Your task to perform on an android device: delete location history Image 0: 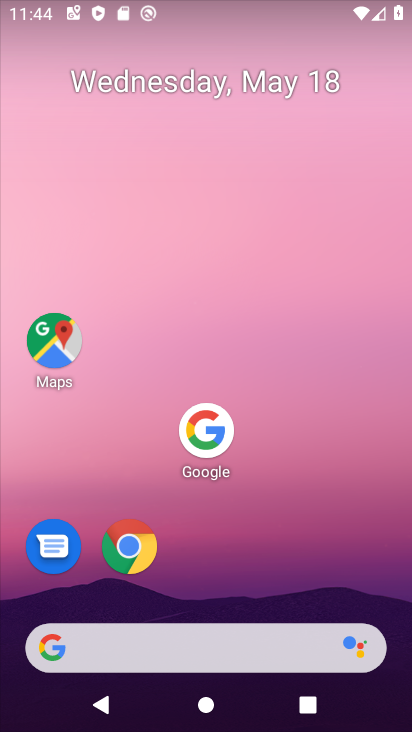
Step 0: drag from (265, 528) to (243, 72)
Your task to perform on an android device: delete location history Image 1: 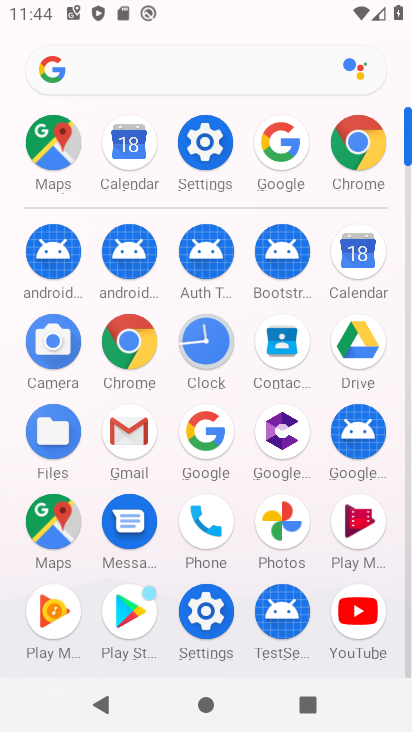
Step 1: click (210, 149)
Your task to perform on an android device: delete location history Image 2: 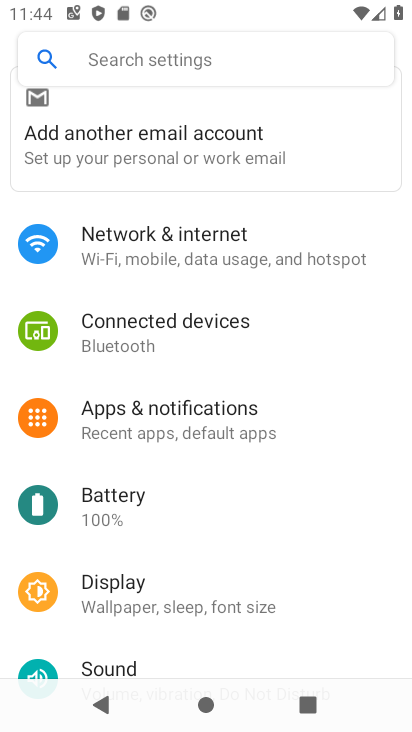
Step 2: drag from (224, 552) to (205, 129)
Your task to perform on an android device: delete location history Image 3: 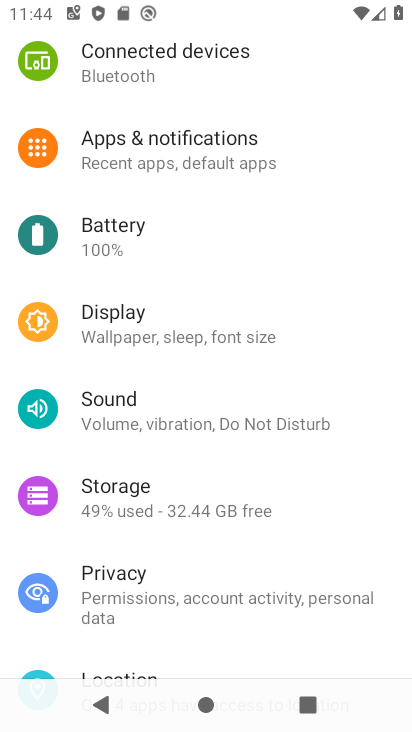
Step 3: drag from (142, 636) to (139, 265)
Your task to perform on an android device: delete location history Image 4: 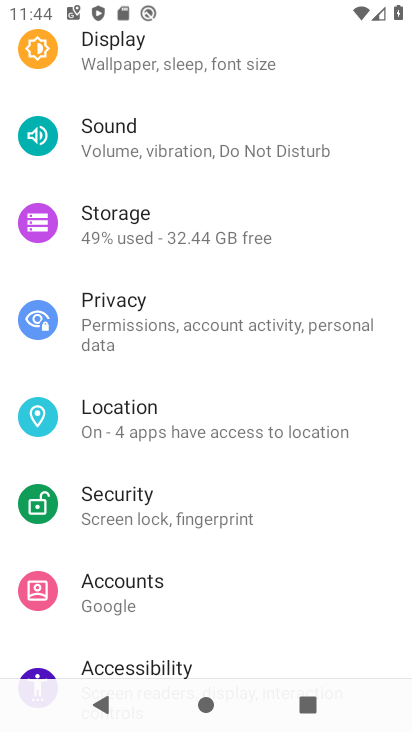
Step 4: click (168, 420)
Your task to perform on an android device: delete location history Image 5: 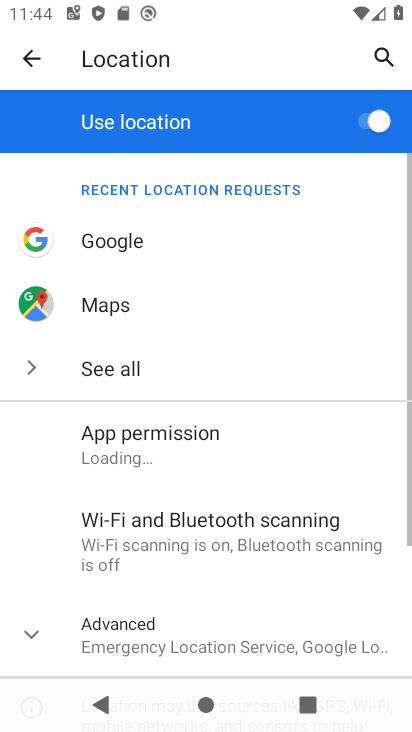
Step 5: drag from (229, 590) to (216, 195)
Your task to perform on an android device: delete location history Image 6: 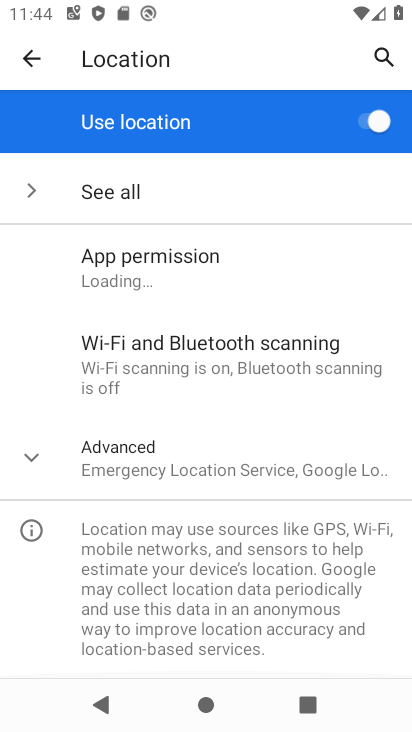
Step 6: click (187, 472)
Your task to perform on an android device: delete location history Image 7: 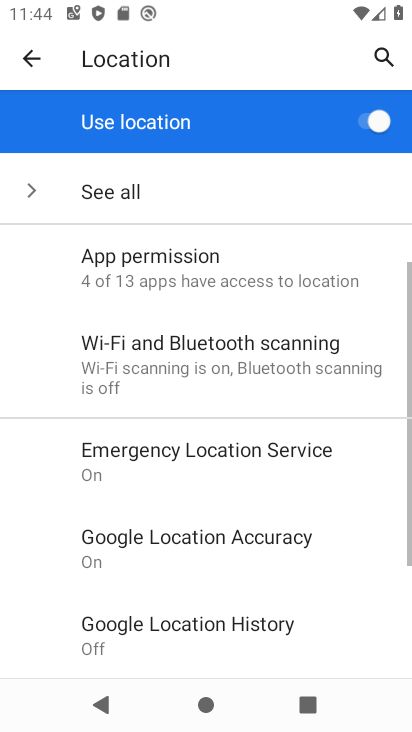
Step 7: drag from (246, 548) to (228, 377)
Your task to perform on an android device: delete location history Image 8: 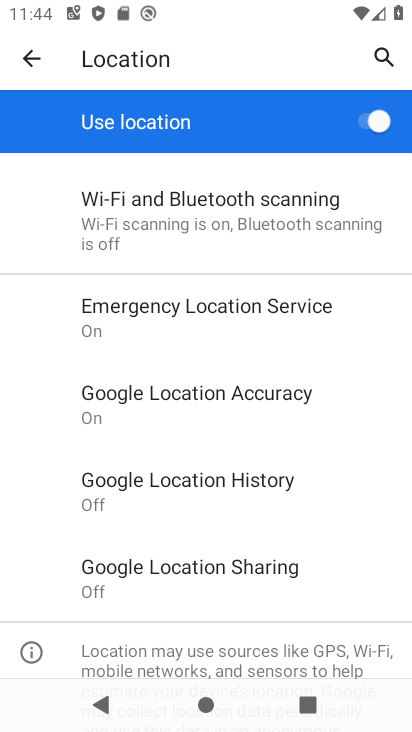
Step 8: click (148, 471)
Your task to perform on an android device: delete location history Image 9: 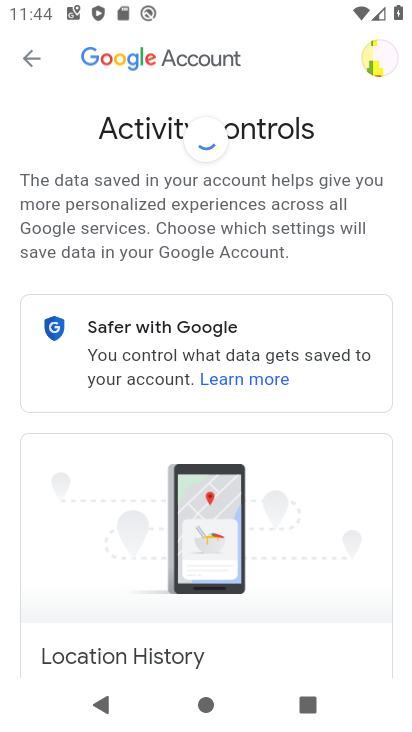
Step 9: drag from (319, 573) to (310, 71)
Your task to perform on an android device: delete location history Image 10: 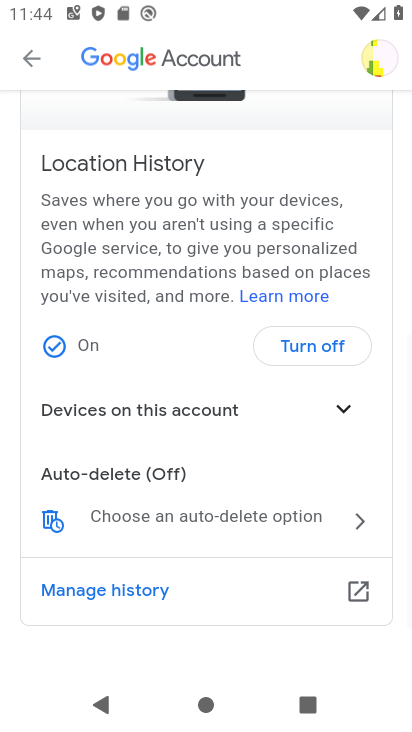
Step 10: drag from (241, 577) to (216, 267)
Your task to perform on an android device: delete location history Image 11: 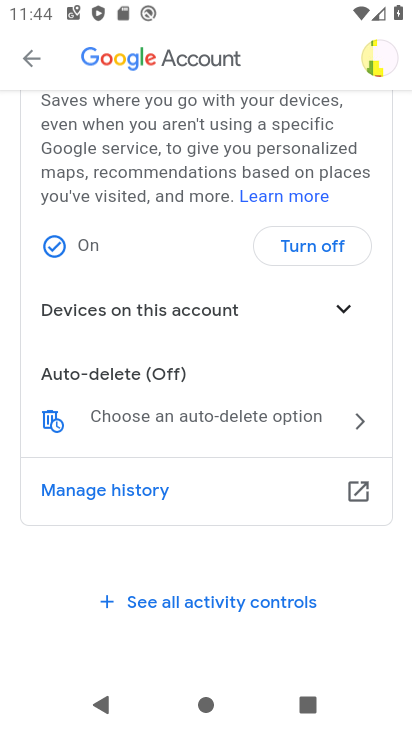
Step 11: click (52, 418)
Your task to perform on an android device: delete location history Image 12: 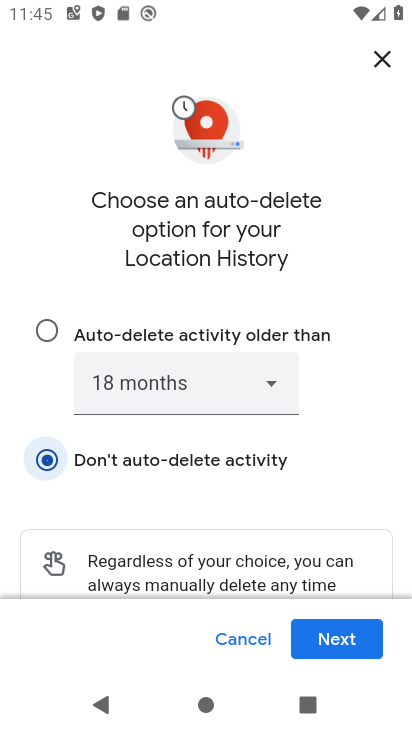
Step 12: click (334, 637)
Your task to perform on an android device: delete location history Image 13: 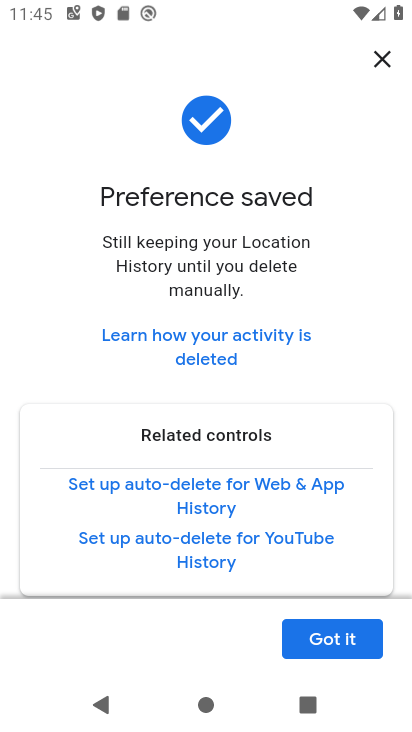
Step 13: click (344, 644)
Your task to perform on an android device: delete location history Image 14: 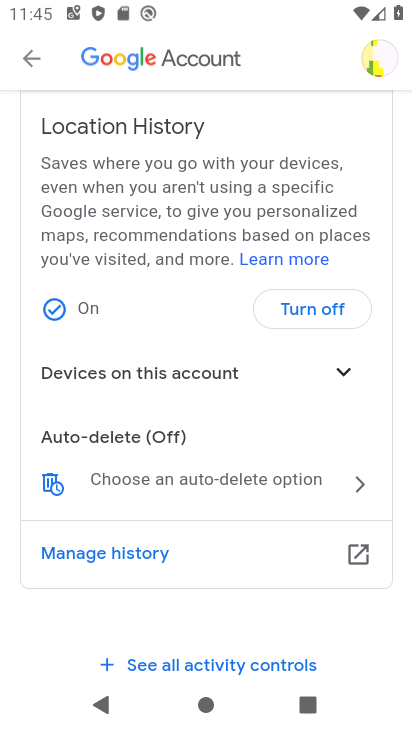
Step 14: task complete